Your task to perform on an android device: toggle airplane mode Image 0: 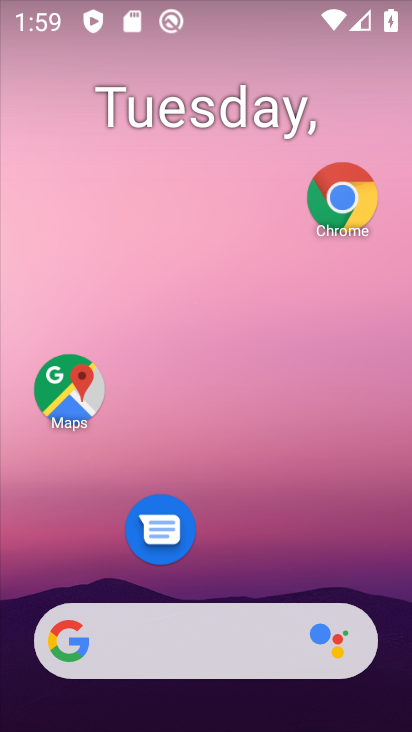
Step 0: drag from (287, 11) to (184, 551)
Your task to perform on an android device: toggle airplane mode Image 1: 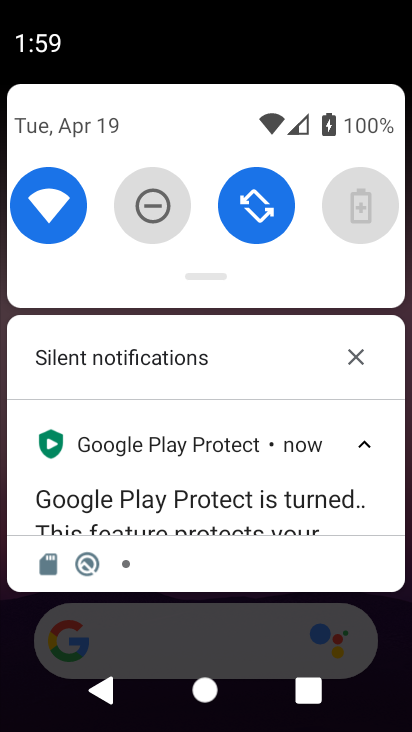
Step 1: drag from (186, 322) to (192, 646)
Your task to perform on an android device: toggle airplane mode Image 2: 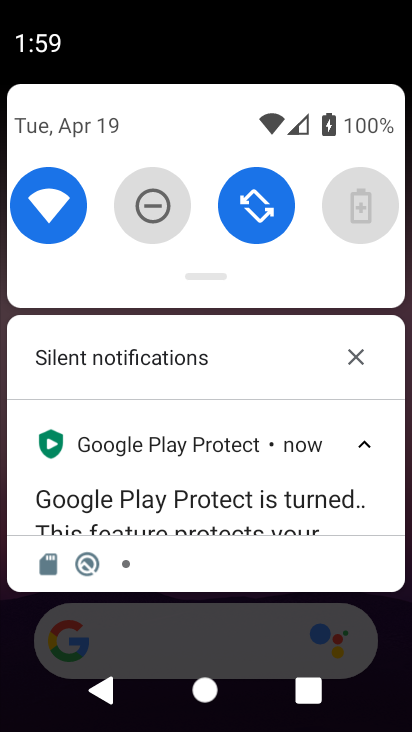
Step 2: drag from (374, 219) to (84, 215)
Your task to perform on an android device: toggle airplane mode Image 3: 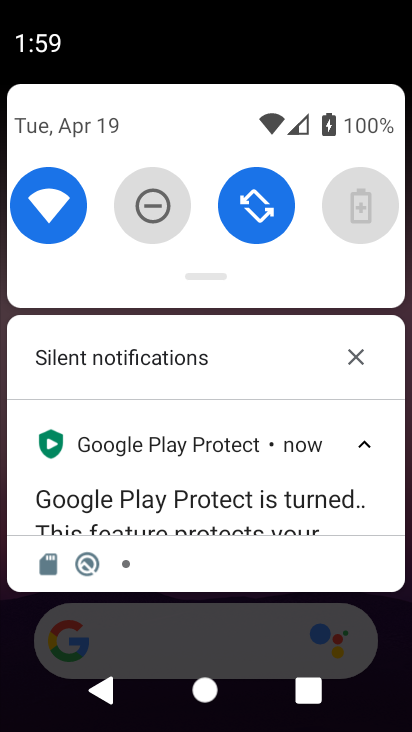
Step 3: drag from (198, 261) to (206, 579)
Your task to perform on an android device: toggle airplane mode Image 4: 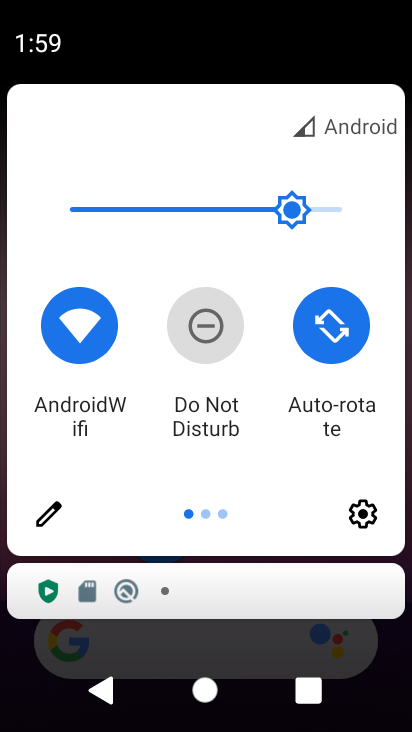
Step 4: drag from (362, 319) to (48, 280)
Your task to perform on an android device: toggle airplane mode Image 5: 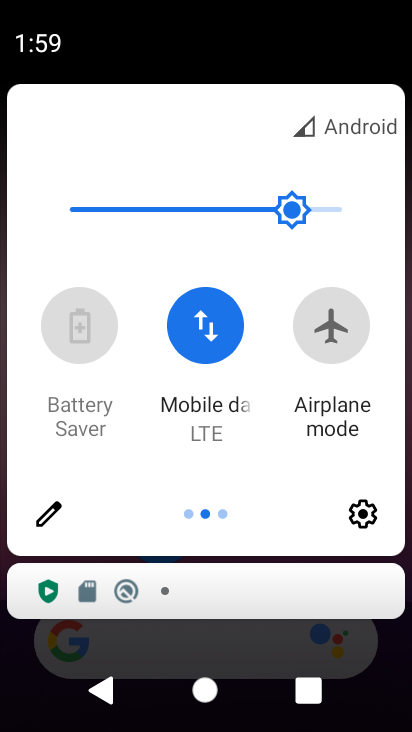
Step 5: click (338, 327)
Your task to perform on an android device: toggle airplane mode Image 6: 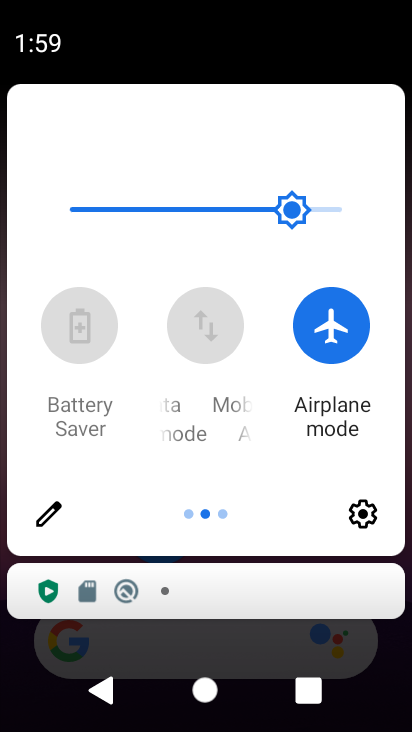
Step 6: task complete